Your task to perform on an android device: Search for acer predator on target.com, select the first entry, and add it to the cart. Image 0: 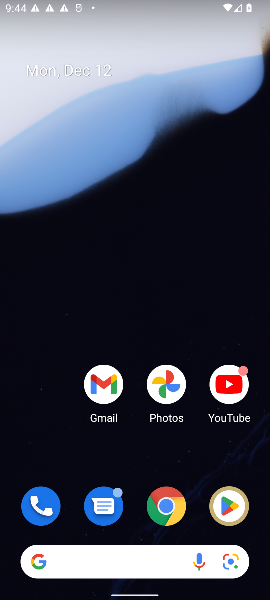
Step 0: click (112, 558)
Your task to perform on an android device: Search for acer predator on target.com, select the first entry, and add it to the cart. Image 1: 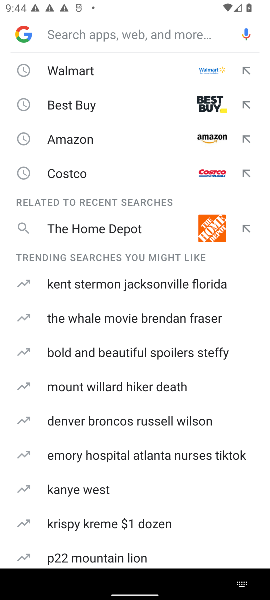
Step 1: type "target"
Your task to perform on an android device: Search for acer predator on target.com, select the first entry, and add it to the cart. Image 2: 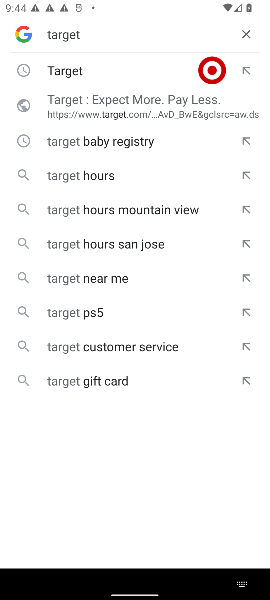
Step 2: click (75, 70)
Your task to perform on an android device: Search for acer predator on target.com, select the first entry, and add it to the cart. Image 3: 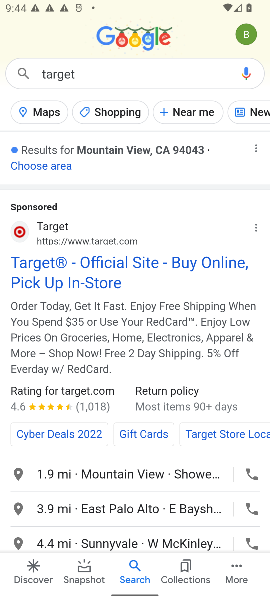
Step 3: click (64, 272)
Your task to perform on an android device: Search for acer predator on target.com, select the first entry, and add it to the cart. Image 4: 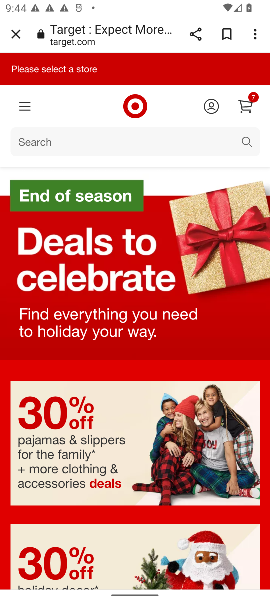
Step 4: click (69, 149)
Your task to perform on an android device: Search for acer predator on target.com, select the first entry, and add it to the cart. Image 5: 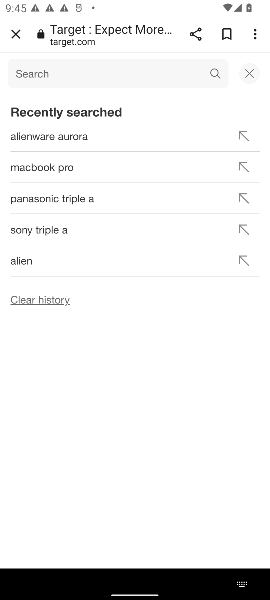
Step 5: type "acer predator"
Your task to perform on an android device: Search for acer predator on target.com, select the first entry, and add it to the cart. Image 6: 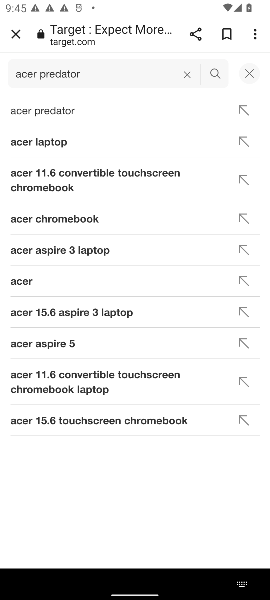
Step 6: click (69, 108)
Your task to perform on an android device: Search for acer predator on target.com, select the first entry, and add it to the cart. Image 7: 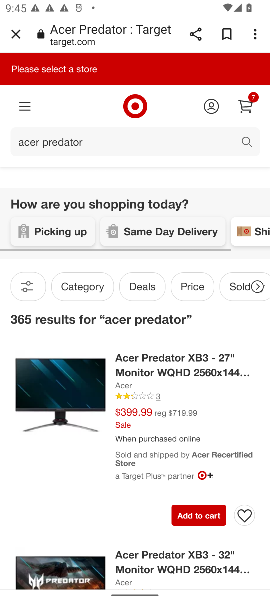
Step 7: click (213, 526)
Your task to perform on an android device: Search for acer predator on target.com, select the first entry, and add it to the cart. Image 8: 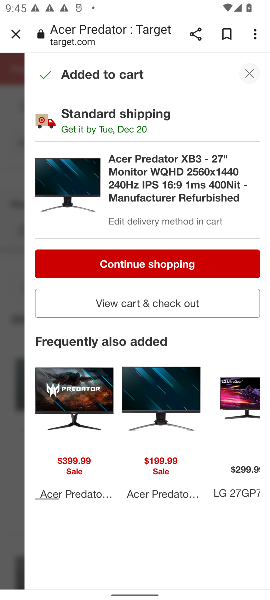
Step 8: click (250, 85)
Your task to perform on an android device: Search for acer predator on target.com, select the first entry, and add it to the cart. Image 9: 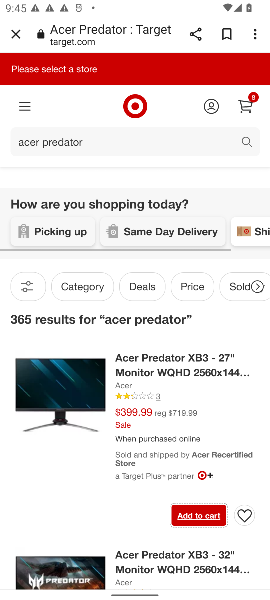
Step 9: click (188, 523)
Your task to perform on an android device: Search for acer predator on target.com, select the first entry, and add it to the cart. Image 10: 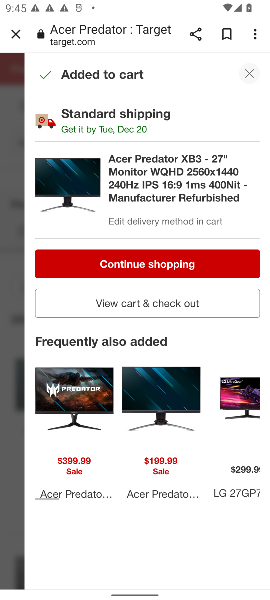
Step 10: task complete